Your task to perform on an android device: Go to notification settings Image 0: 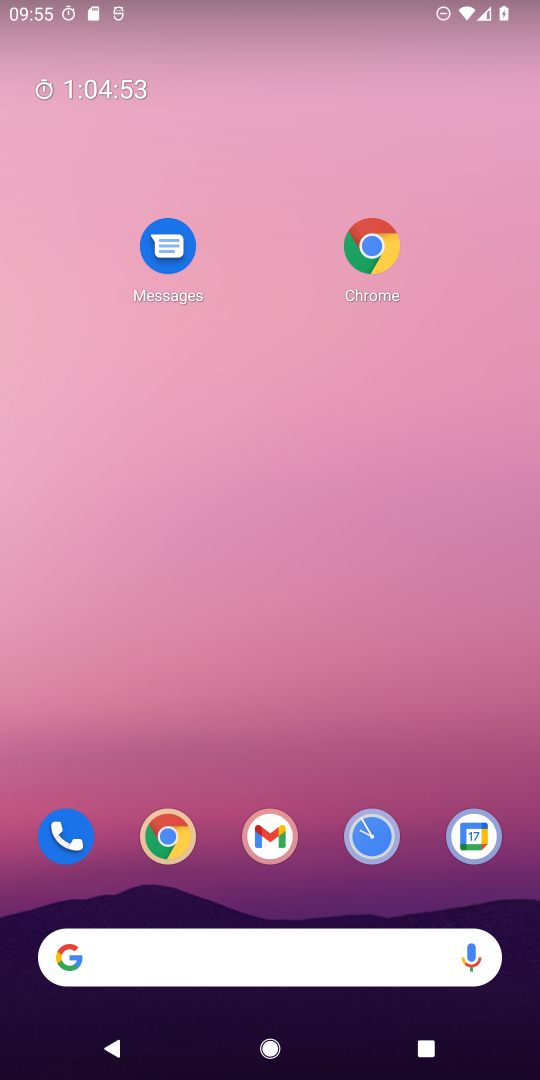
Step 0: drag from (222, 891) to (234, 251)
Your task to perform on an android device: Go to notification settings Image 1: 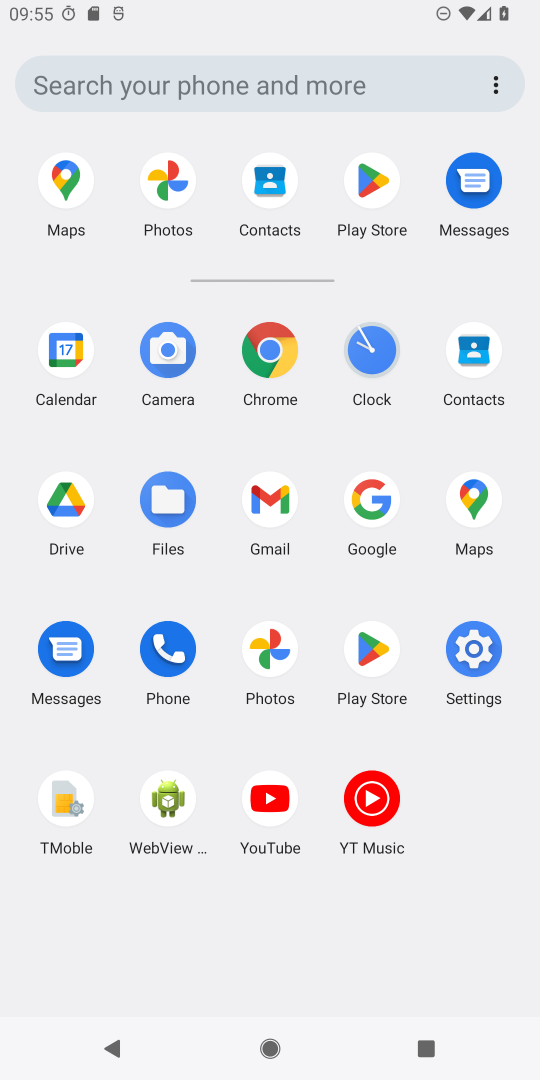
Step 1: click (487, 635)
Your task to perform on an android device: Go to notification settings Image 2: 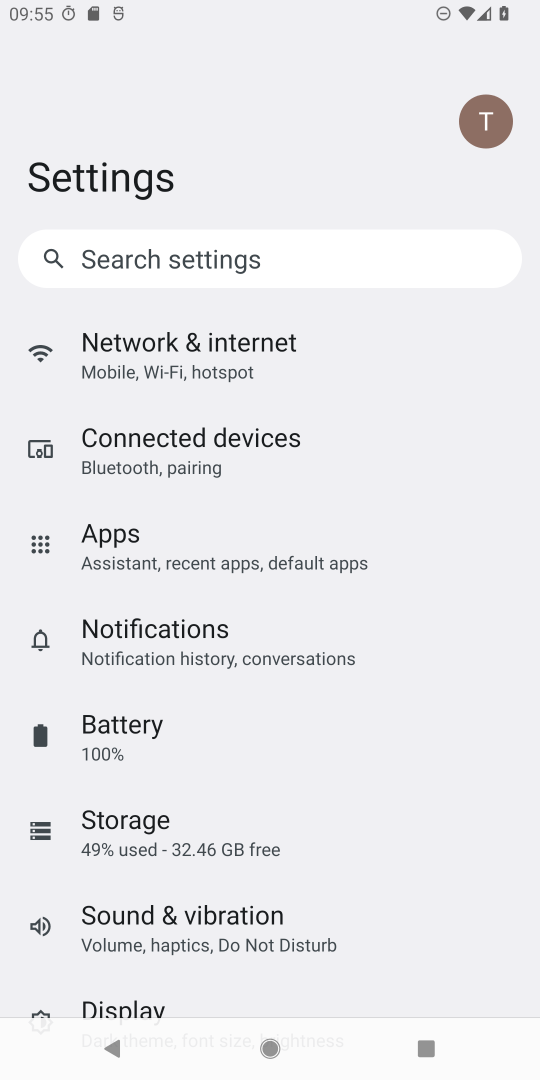
Step 2: click (210, 636)
Your task to perform on an android device: Go to notification settings Image 3: 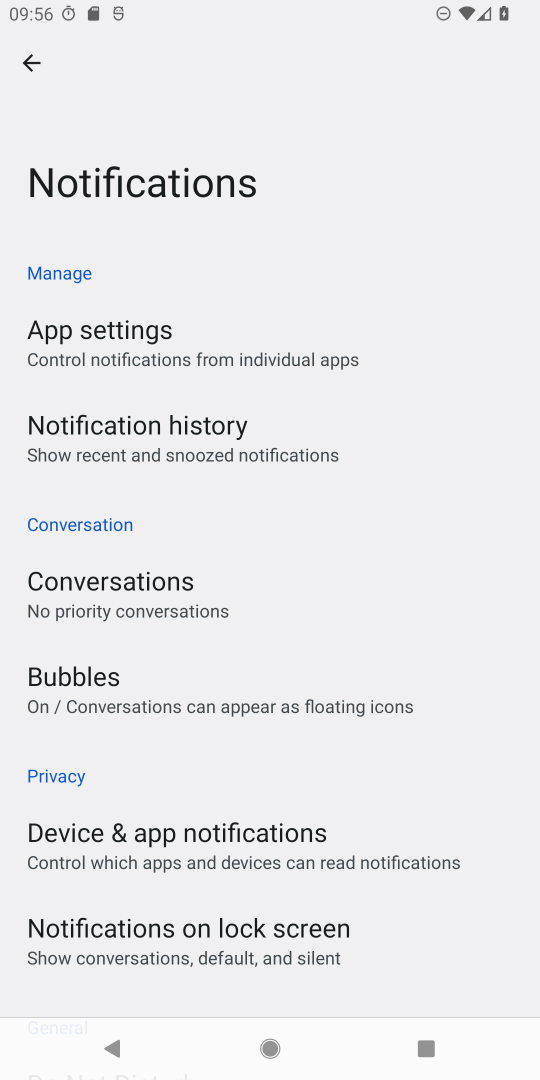
Step 3: task complete